Your task to perform on an android device: turn off translation in the chrome app Image 0: 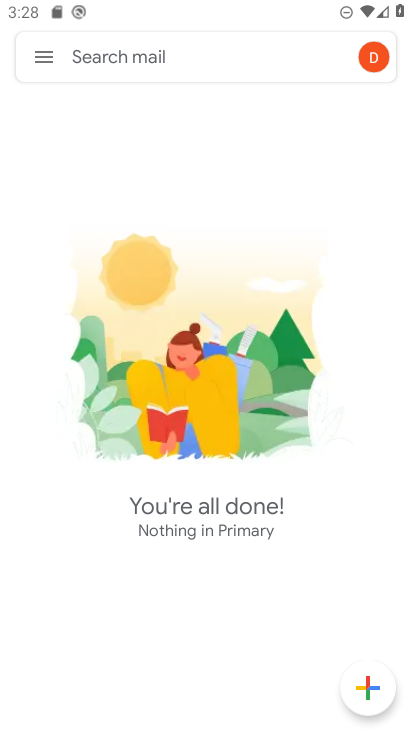
Step 0: press home button
Your task to perform on an android device: turn off translation in the chrome app Image 1: 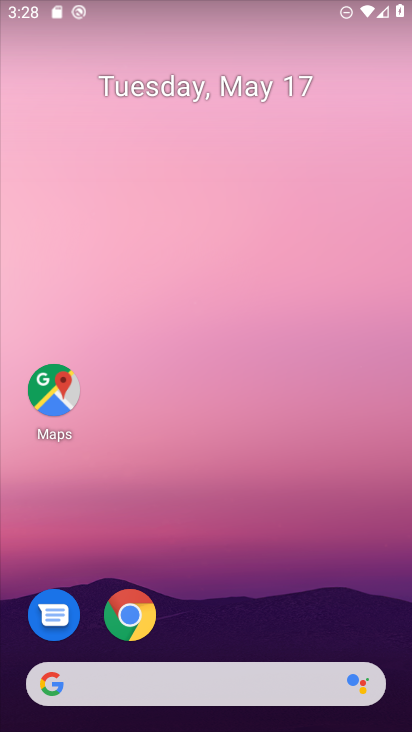
Step 1: click (125, 610)
Your task to perform on an android device: turn off translation in the chrome app Image 2: 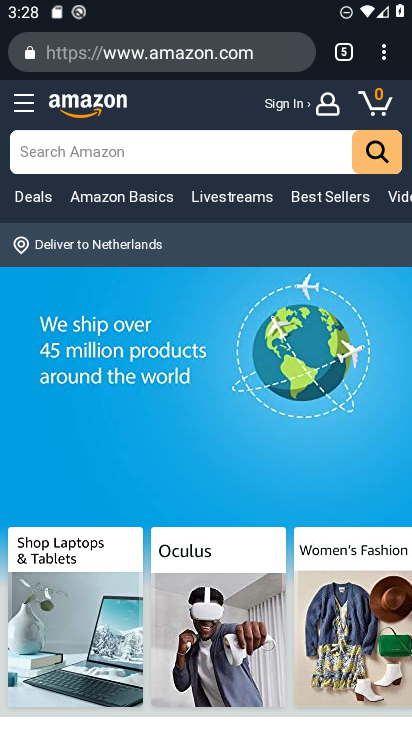
Step 2: click (385, 58)
Your task to perform on an android device: turn off translation in the chrome app Image 3: 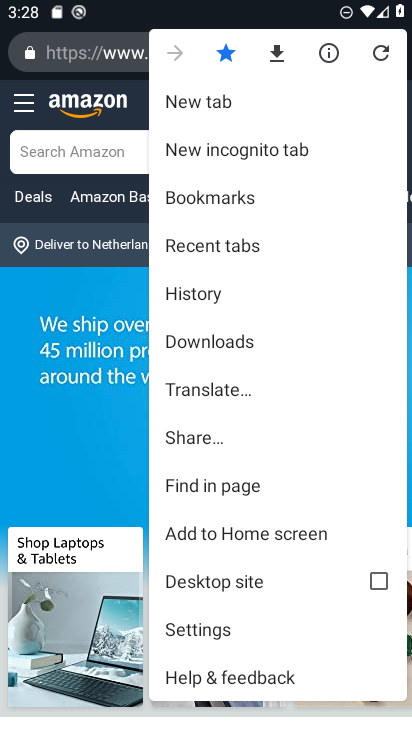
Step 3: click (191, 626)
Your task to perform on an android device: turn off translation in the chrome app Image 4: 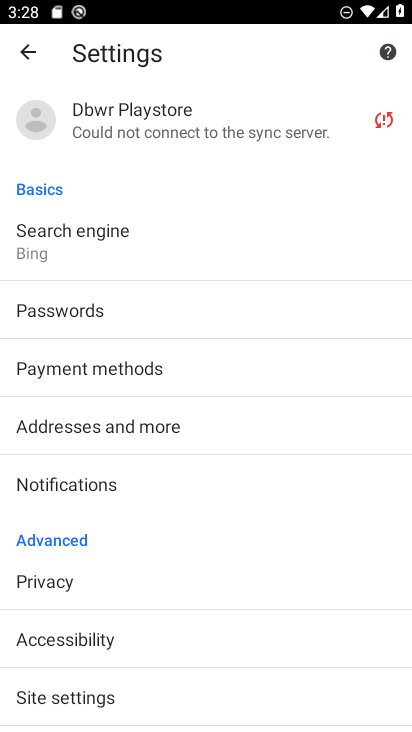
Step 4: drag from (138, 670) to (180, 340)
Your task to perform on an android device: turn off translation in the chrome app Image 5: 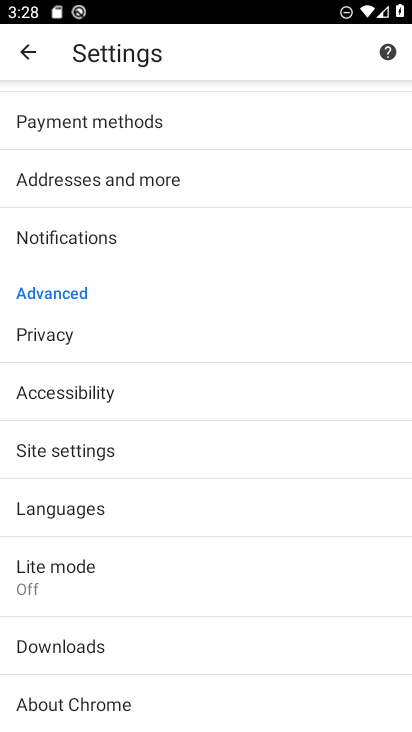
Step 5: click (66, 505)
Your task to perform on an android device: turn off translation in the chrome app Image 6: 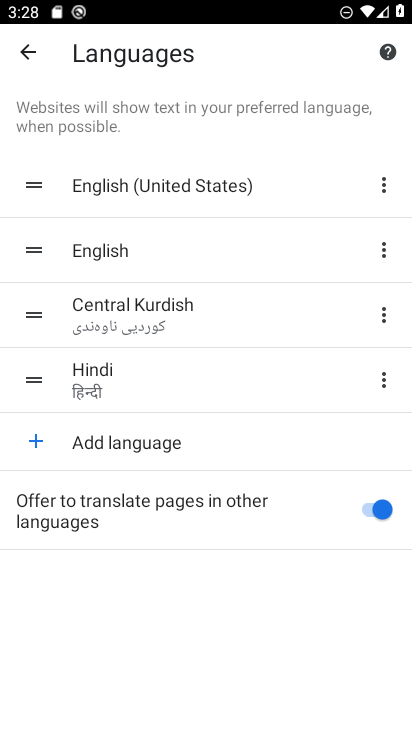
Step 6: click (370, 510)
Your task to perform on an android device: turn off translation in the chrome app Image 7: 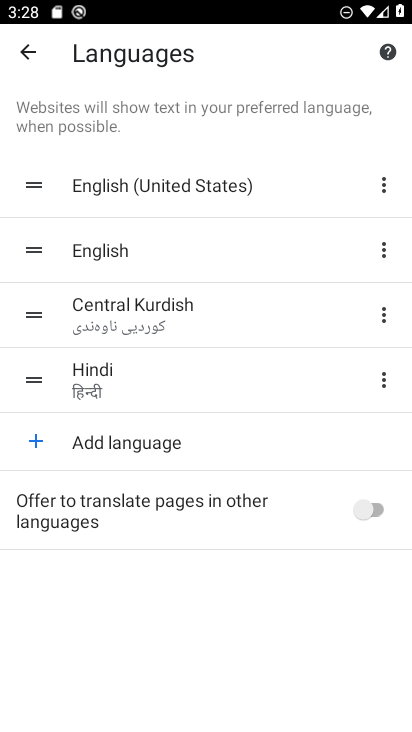
Step 7: task complete